Your task to perform on an android device: all mails in gmail Image 0: 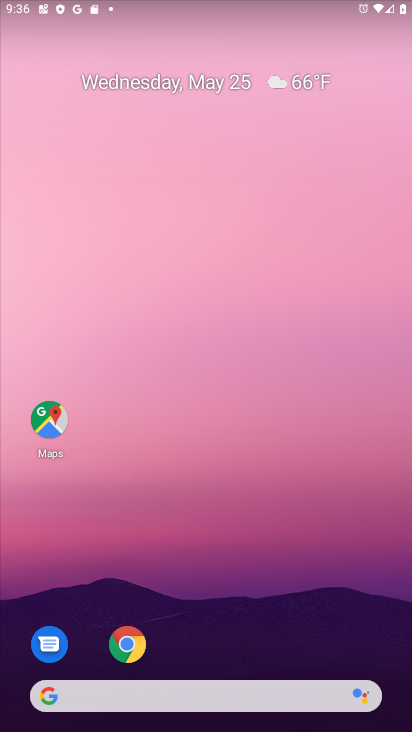
Step 0: drag from (207, 667) to (219, 0)
Your task to perform on an android device: all mails in gmail Image 1: 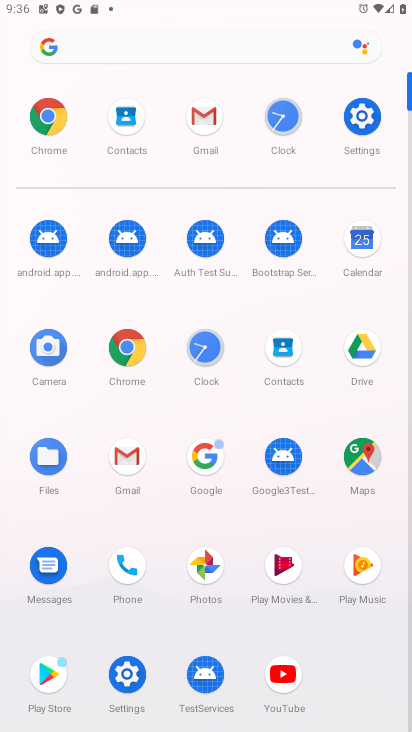
Step 1: click (201, 109)
Your task to perform on an android device: all mails in gmail Image 2: 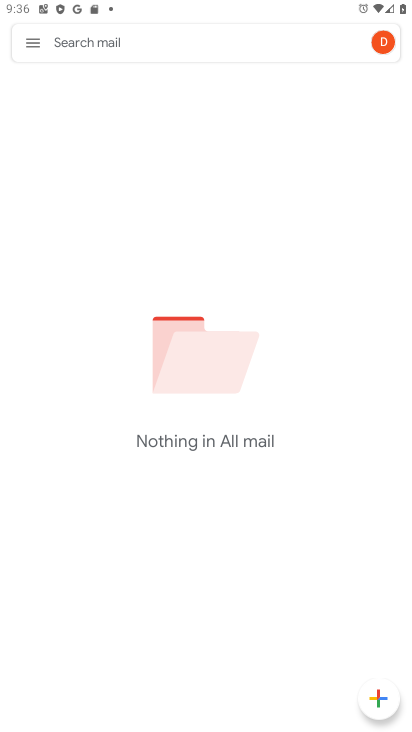
Step 2: task complete